Your task to perform on an android device: Open accessibility settings Image 0: 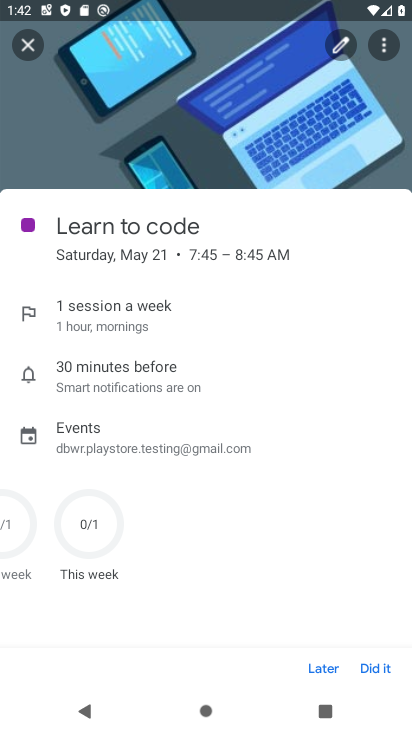
Step 0: press home button
Your task to perform on an android device: Open accessibility settings Image 1: 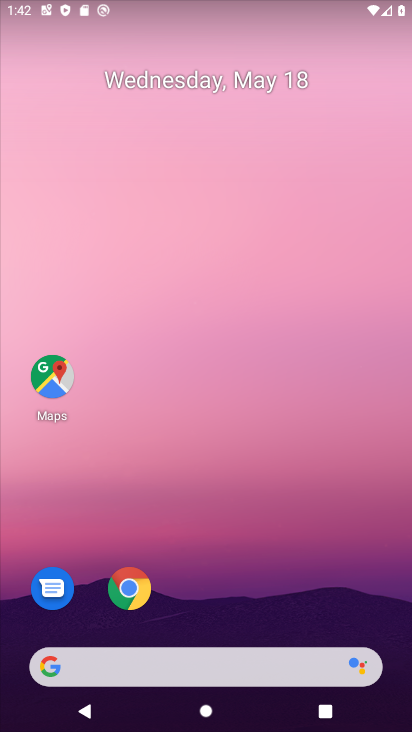
Step 1: drag from (311, 560) to (284, 104)
Your task to perform on an android device: Open accessibility settings Image 2: 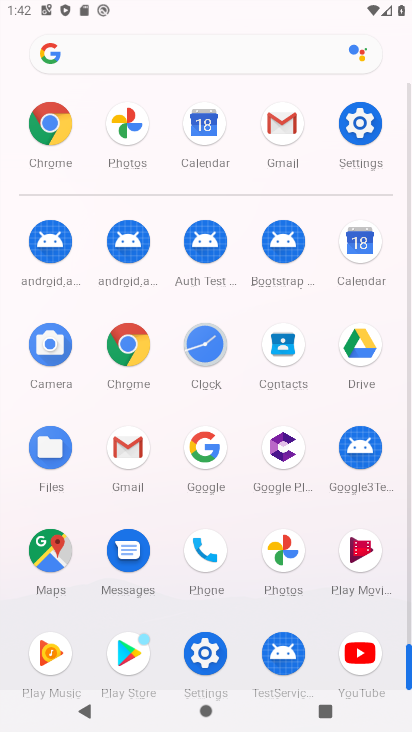
Step 2: click (371, 118)
Your task to perform on an android device: Open accessibility settings Image 3: 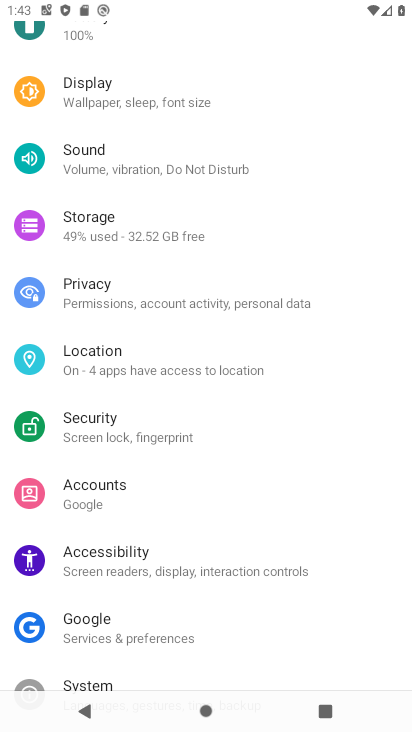
Step 3: drag from (314, 540) to (328, 371)
Your task to perform on an android device: Open accessibility settings Image 4: 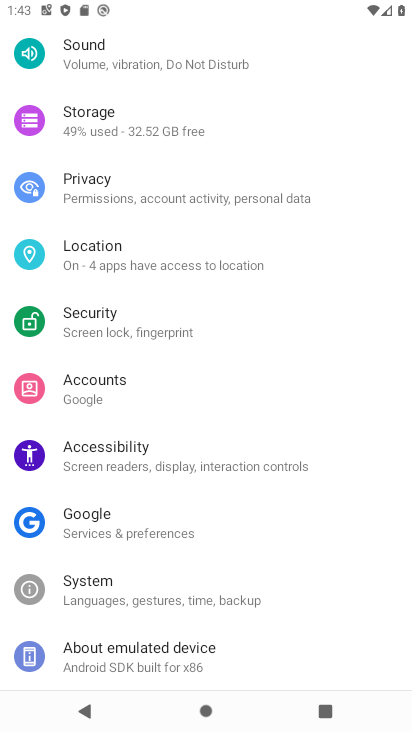
Step 4: drag from (339, 585) to (372, 395)
Your task to perform on an android device: Open accessibility settings Image 5: 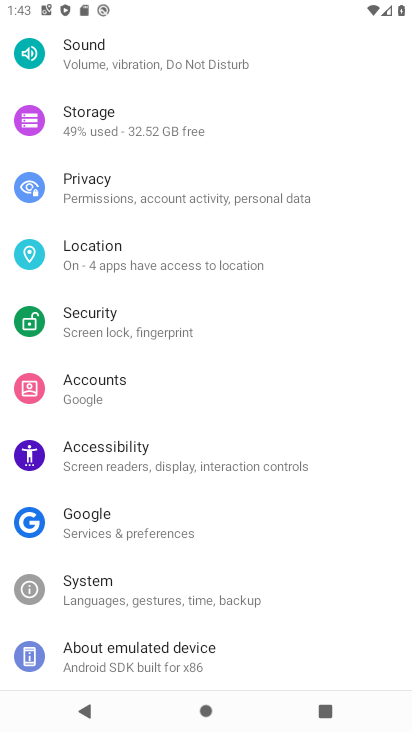
Step 5: drag from (303, 589) to (328, 357)
Your task to perform on an android device: Open accessibility settings Image 6: 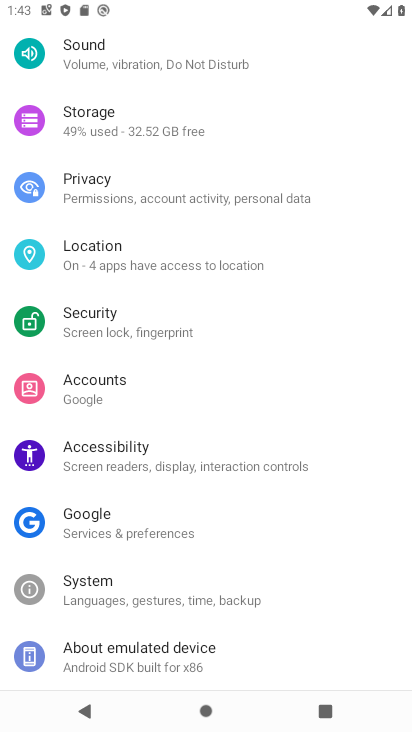
Step 6: drag from (321, 253) to (334, 444)
Your task to perform on an android device: Open accessibility settings Image 7: 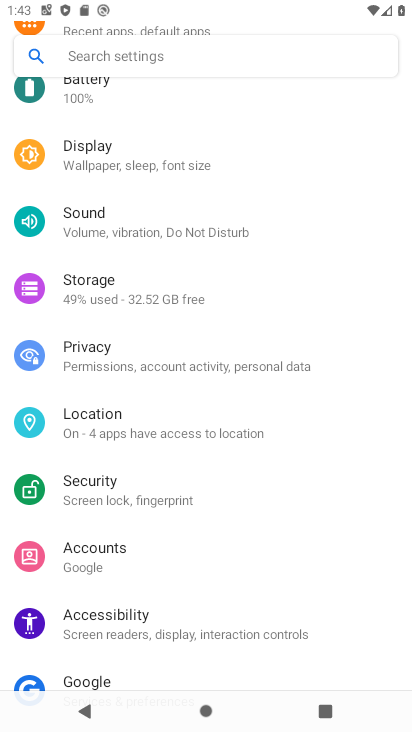
Step 7: drag from (337, 191) to (332, 422)
Your task to perform on an android device: Open accessibility settings Image 8: 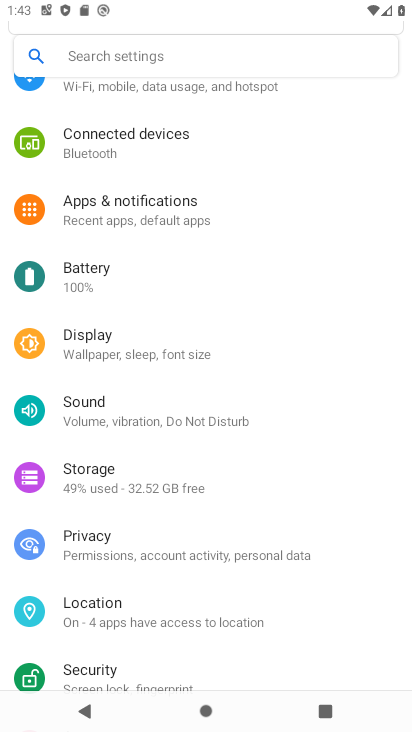
Step 8: drag from (297, 174) to (309, 461)
Your task to perform on an android device: Open accessibility settings Image 9: 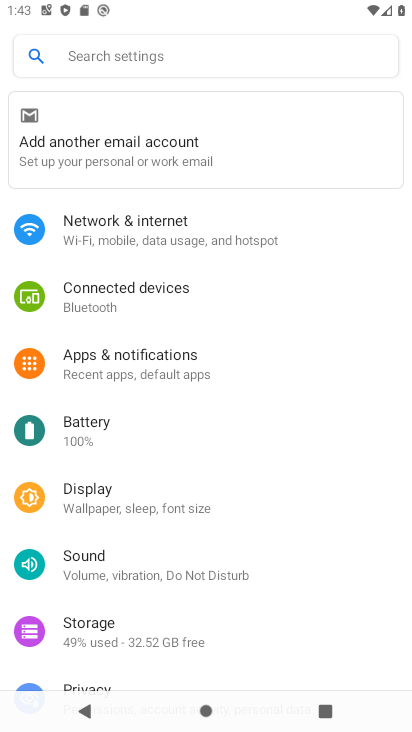
Step 9: drag from (333, 496) to (342, 350)
Your task to perform on an android device: Open accessibility settings Image 10: 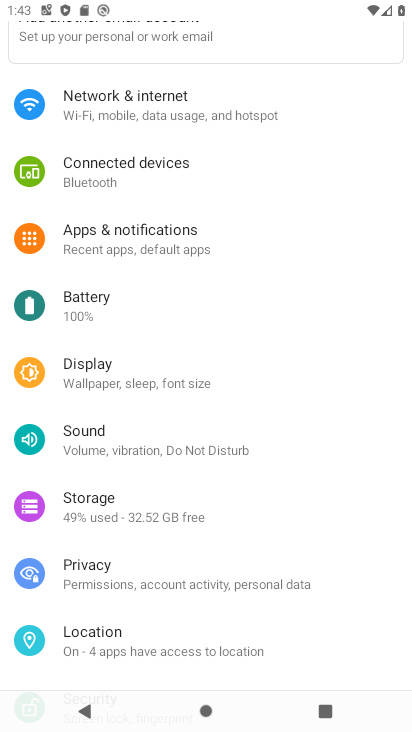
Step 10: drag from (335, 550) to (335, 373)
Your task to perform on an android device: Open accessibility settings Image 11: 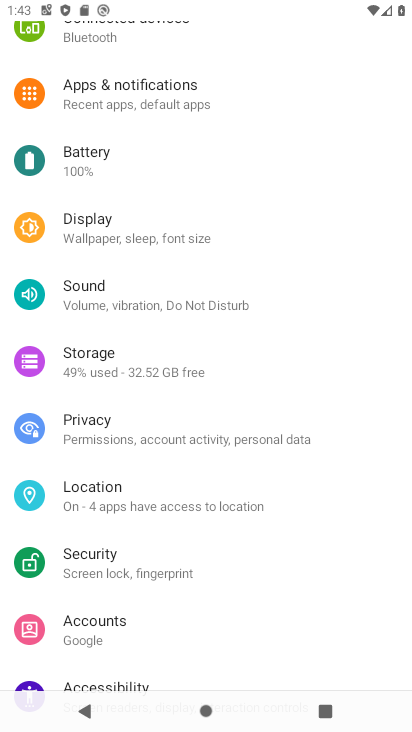
Step 11: drag from (322, 558) to (345, 356)
Your task to perform on an android device: Open accessibility settings Image 12: 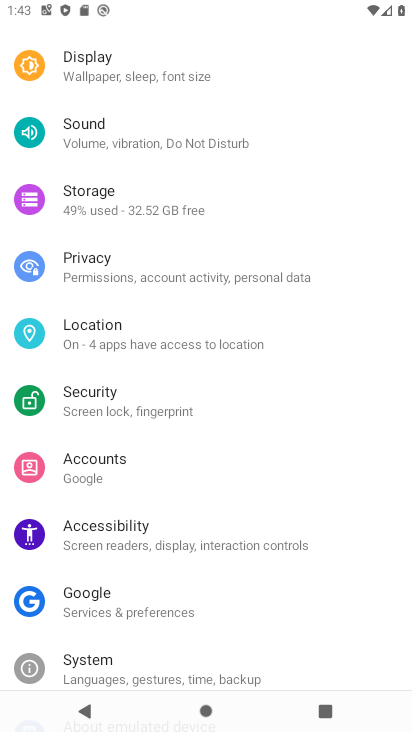
Step 12: drag from (311, 579) to (322, 377)
Your task to perform on an android device: Open accessibility settings Image 13: 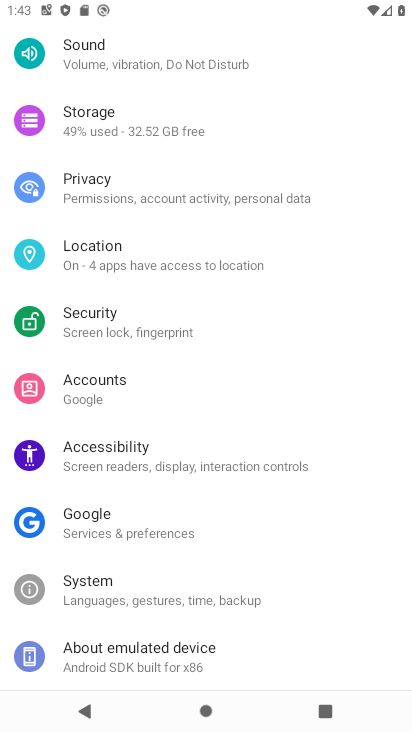
Step 13: click (184, 465)
Your task to perform on an android device: Open accessibility settings Image 14: 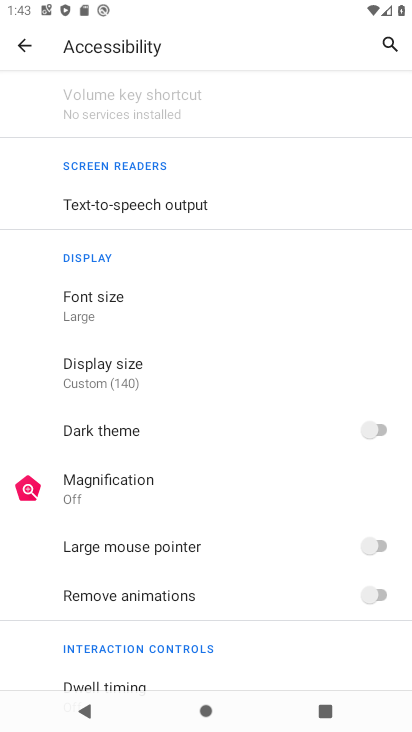
Step 14: task complete